Your task to perform on an android device: toggle priority inbox in the gmail app Image 0: 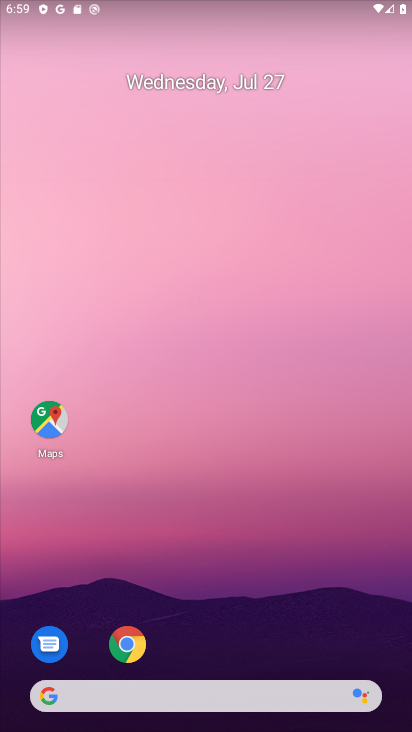
Step 0: drag from (318, 541) to (247, 184)
Your task to perform on an android device: toggle priority inbox in the gmail app Image 1: 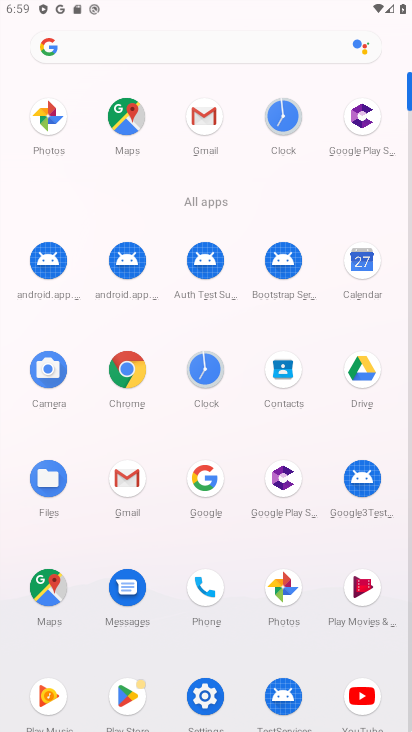
Step 1: press home button
Your task to perform on an android device: toggle priority inbox in the gmail app Image 2: 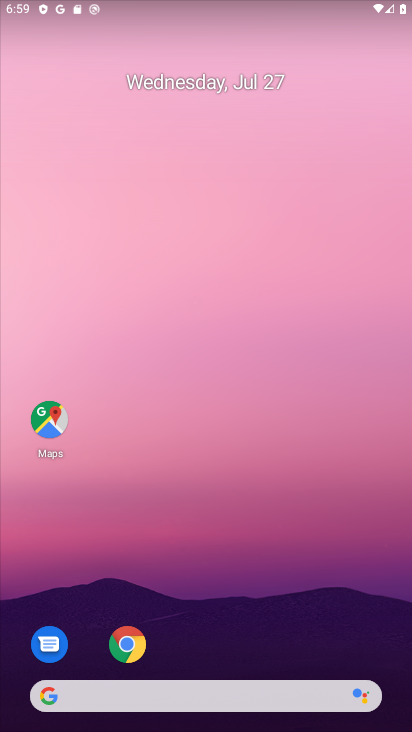
Step 2: drag from (270, 610) to (207, 236)
Your task to perform on an android device: toggle priority inbox in the gmail app Image 3: 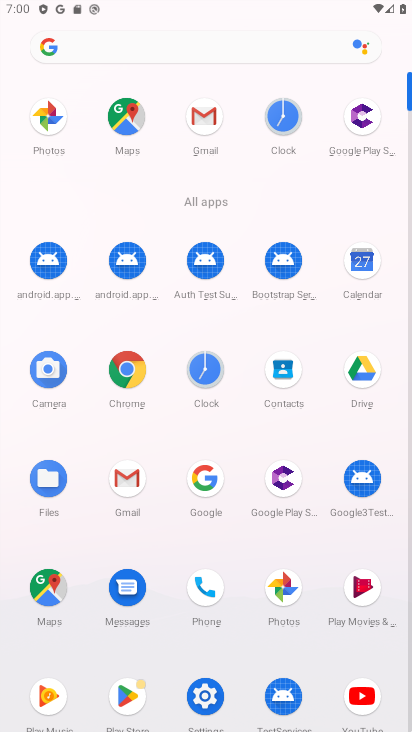
Step 3: click (133, 483)
Your task to perform on an android device: toggle priority inbox in the gmail app Image 4: 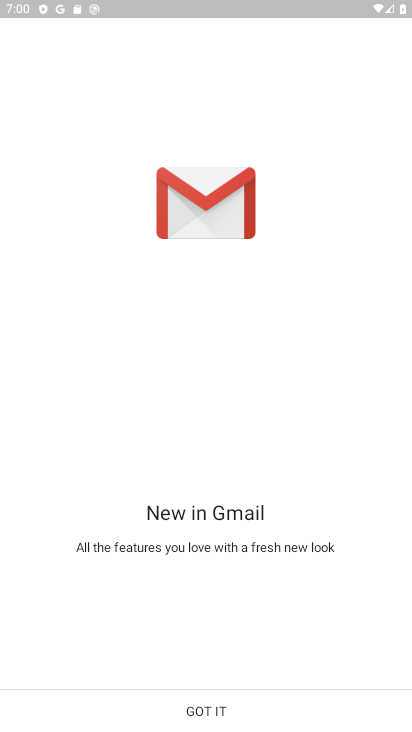
Step 4: click (200, 702)
Your task to perform on an android device: toggle priority inbox in the gmail app Image 5: 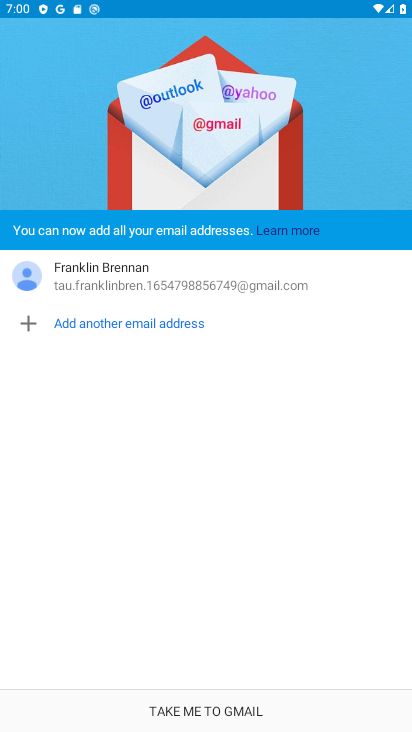
Step 5: click (217, 707)
Your task to perform on an android device: toggle priority inbox in the gmail app Image 6: 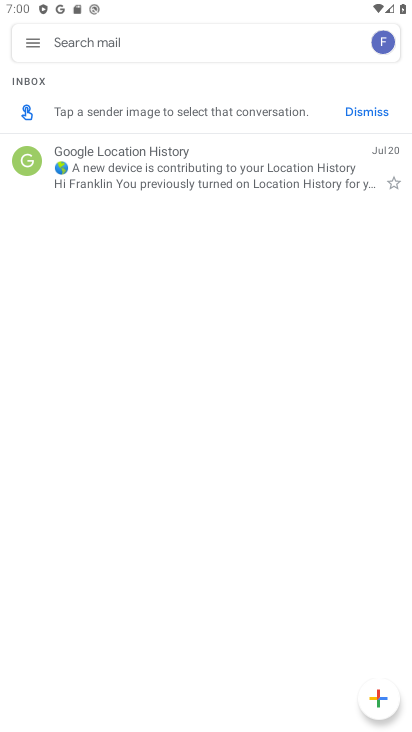
Step 6: task complete